Your task to perform on an android device: open chrome and create a bookmark for the current page Image 0: 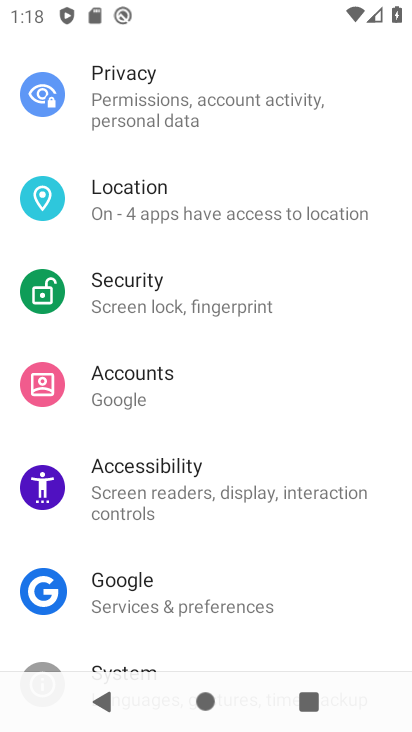
Step 0: press home button
Your task to perform on an android device: open chrome and create a bookmark for the current page Image 1: 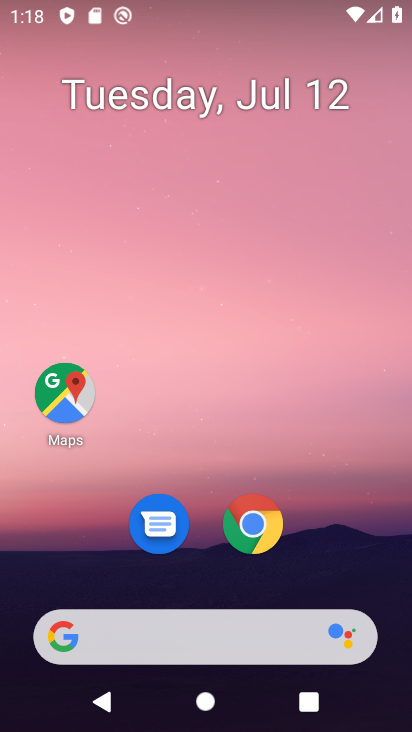
Step 1: click (265, 534)
Your task to perform on an android device: open chrome and create a bookmark for the current page Image 2: 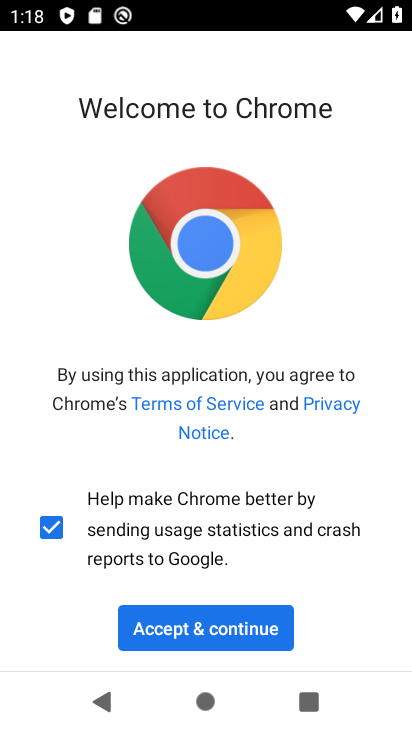
Step 2: click (267, 627)
Your task to perform on an android device: open chrome and create a bookmark for the current page Image 3: 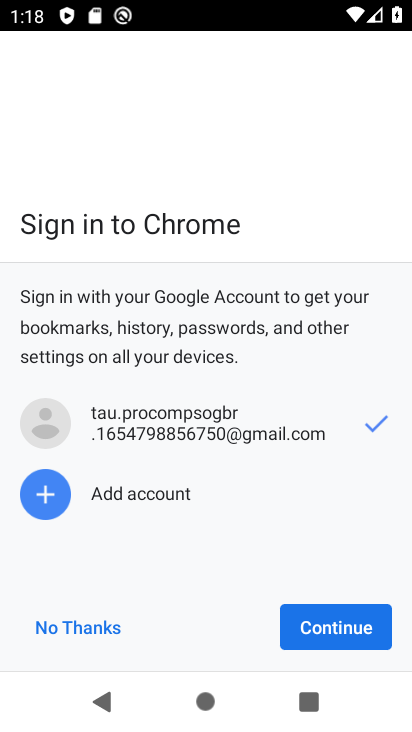
Step 3: click (327, 629)
Your task to perform on an android device: open chrome and create a bookmark for the current page Image 4: 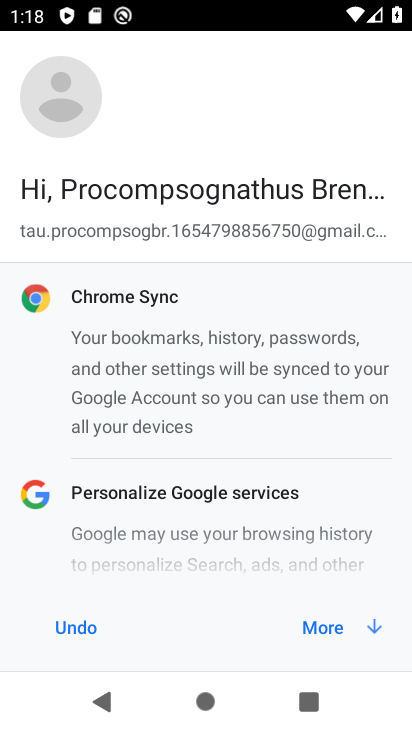
Step 4: click (327, 629)
Your task to perform on an android device: open chrome and create a bookmark for the current page Image 5: 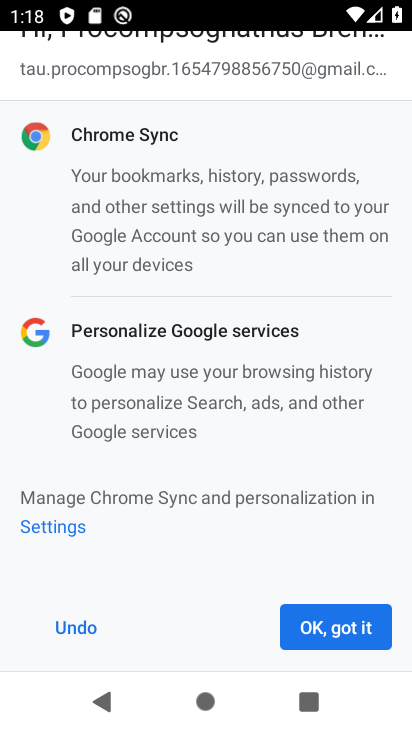
Step 5: click (327, 629)
Your task to perform on an android device: open chrome and create a bookmark for the current page Image 6: 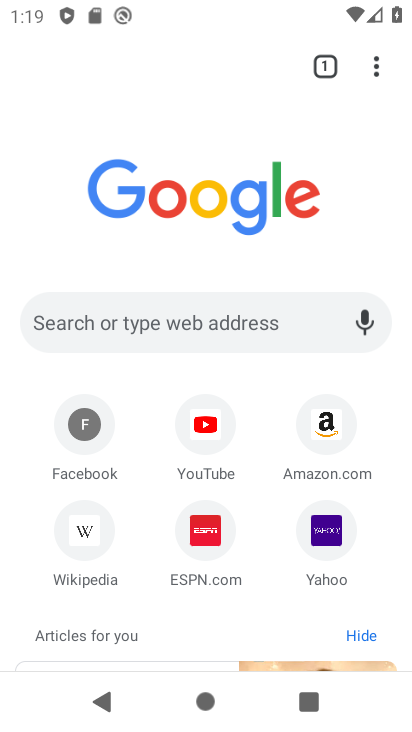
Step 6: click (377, 63)
Your task to perform on an android device: open chrome and create a bookmark for the current page Image 7: 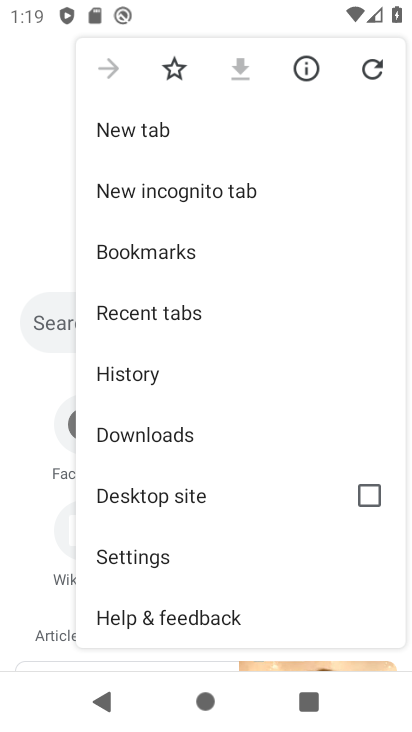
Step 7: click (181, 69)
Your task to perform on an android device: open chrome and create a bookmark for the current page Image 8: 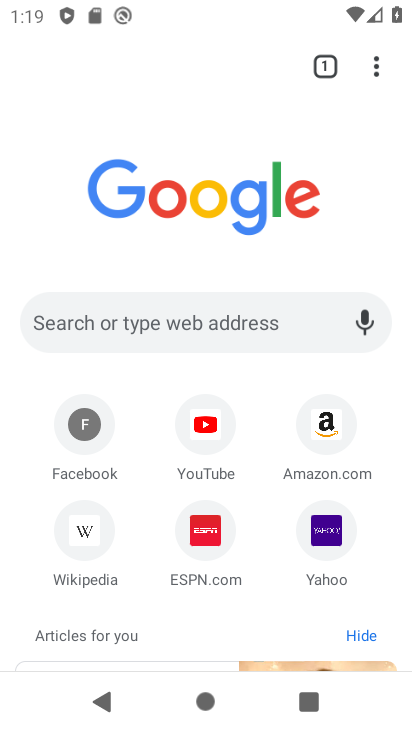
Step 8: click (379, 68)
Your task to perform on an android device: open chrome and create a bookmark for the current page Image 9: 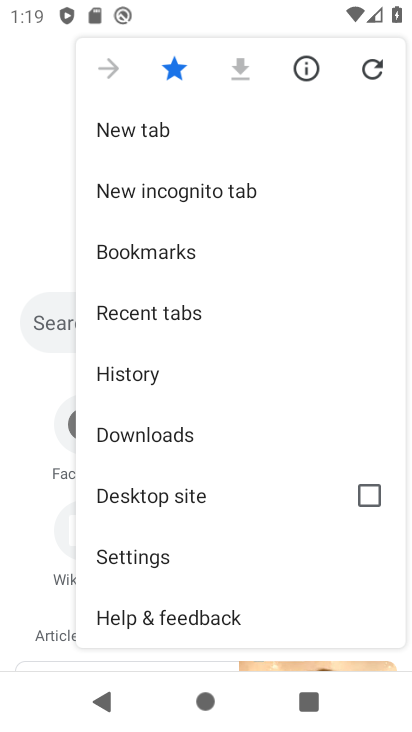
Step 9: click (385, 125)
Your task to perform on an android device: open chrome and create a bookmark for the current page Image 10: 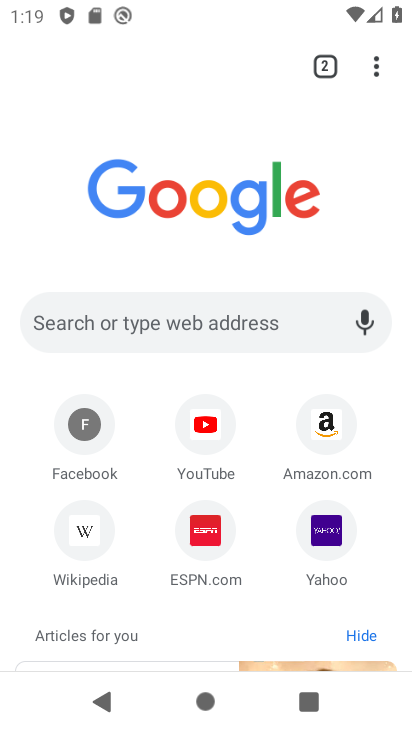
Step 10: task complete